Your task to perform on an android device: Open the Play Movies app and select the watchlist tab. Image 0: 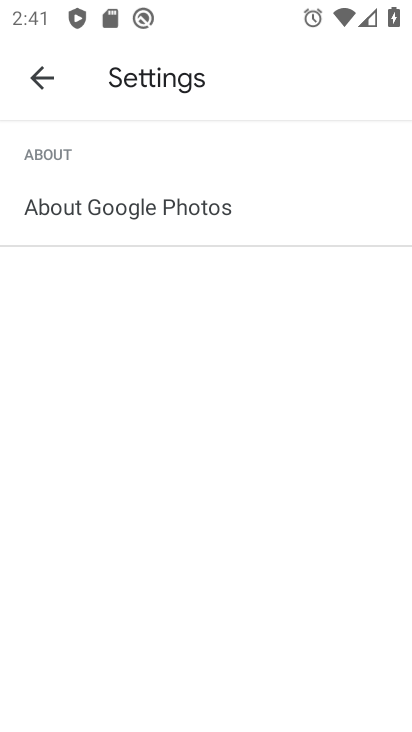
Step 0: press home button
Your task to perform on an android device: Open the Play Movies app and select the watchlist tab. Image 1: 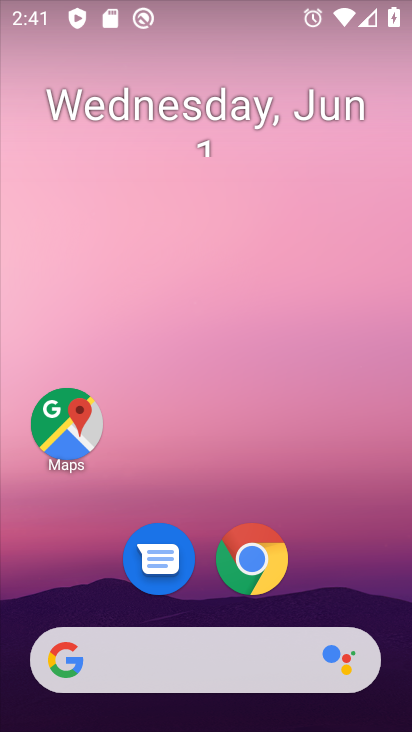
Step 1: drag from (335, 541) to (298, 29)
Your task to perform on an android device: Open the Play Movies app and select the watchlist tab. Image 2: 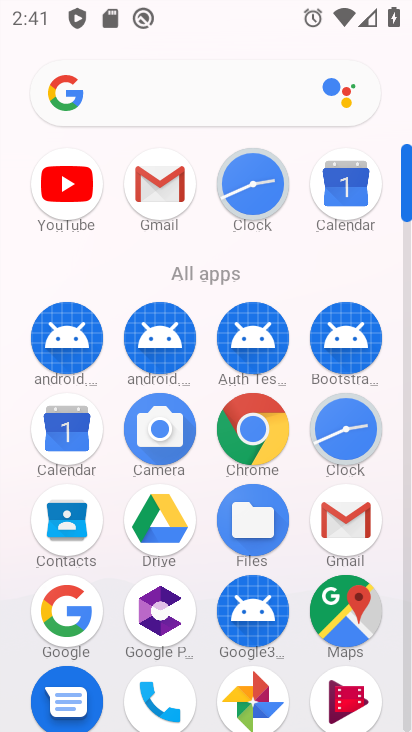
Step 2: click (343, 688)
Your task to perform on an android device: Open the Play Movies app and select the watchlist tab. Image 3: 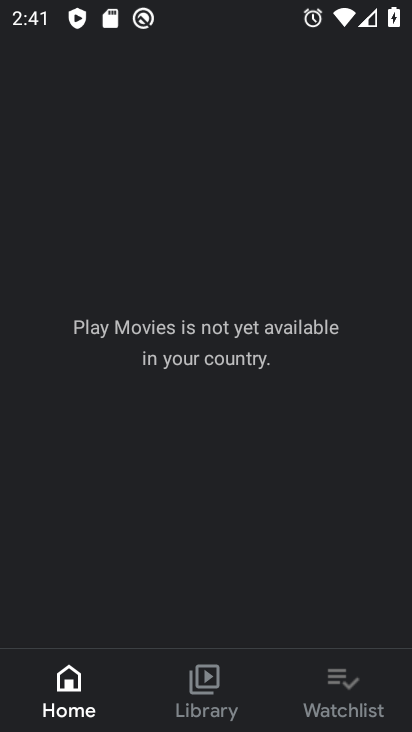
Step 3: click (340, 690)
Your task to perform on an android device: Open the Play Movies app and select the watchlist tab. Image 4: 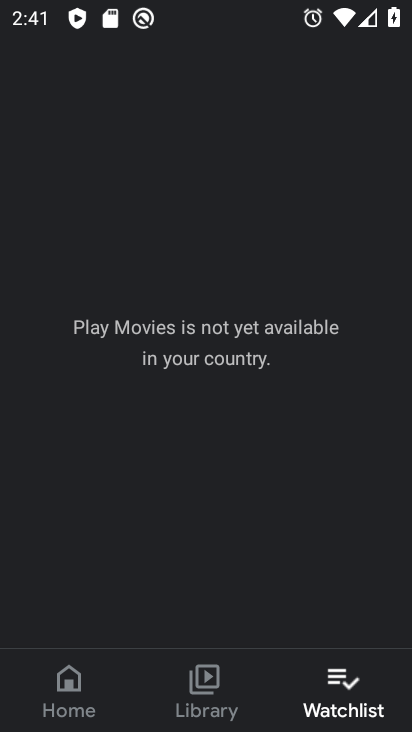
Step 4: task complete